Your task to perform on an android device: toggle data saver in the chrome app Image 0: 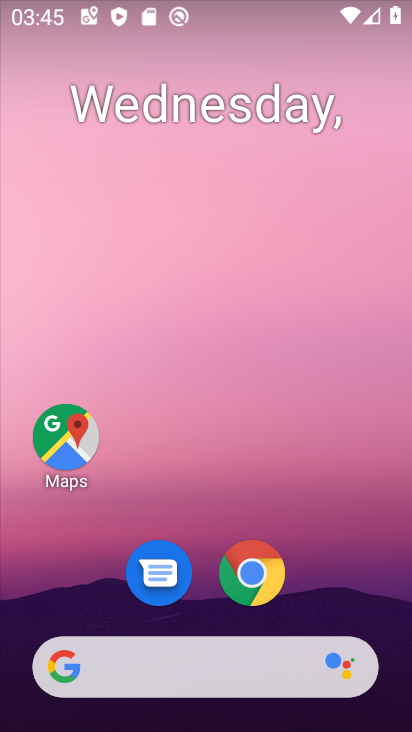
Step 0: click (250, 571)
Your task to perform on an android device: toggle data saver in the chrome app Image 1: 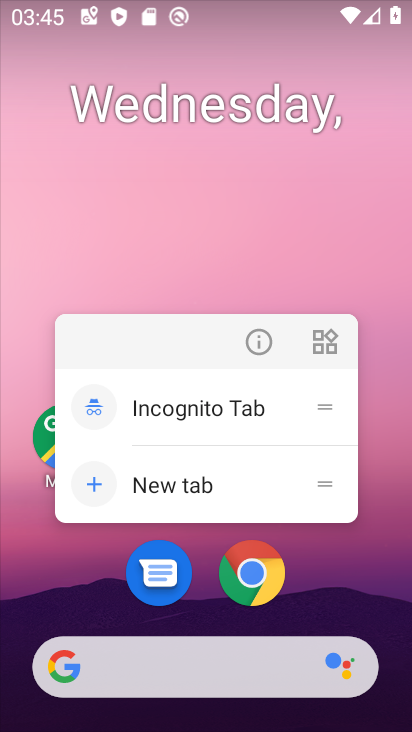
Step 1: click (250, 571)
Your task to perform on an android device: toggle data saver in the chrome app Image 2: 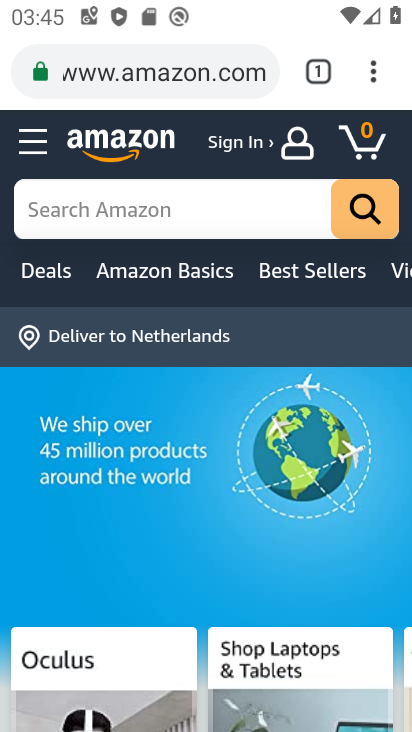
Step 2: click (376, 72)
Your task to perform on an android device: toggle data saver in the chrome app Image 3: 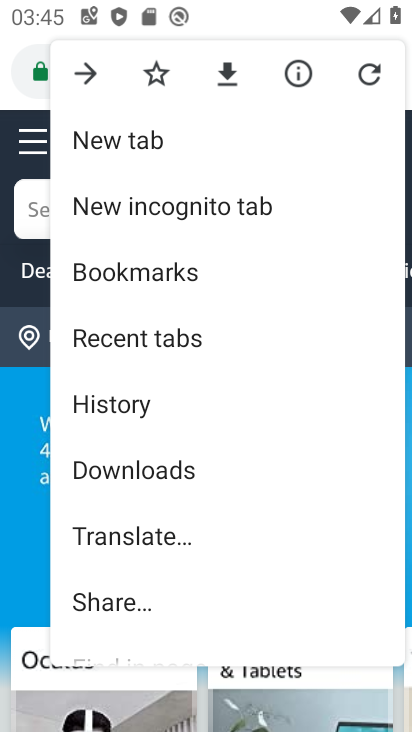
Step 3: drag from (191, 459) to (217, 349)
Your task to perform on an android device: toggle data saver in the chrome app Image 4: 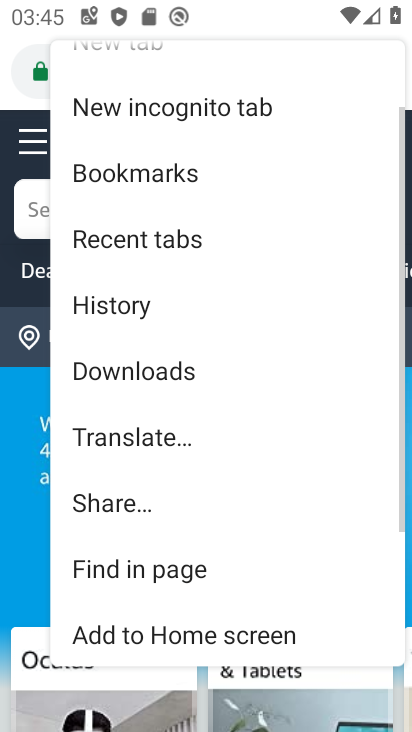
Step 4: drag from (220, 438) to (243, 371)
Your task to perform on an android device: toggle data saver in the chrome app Image 5: 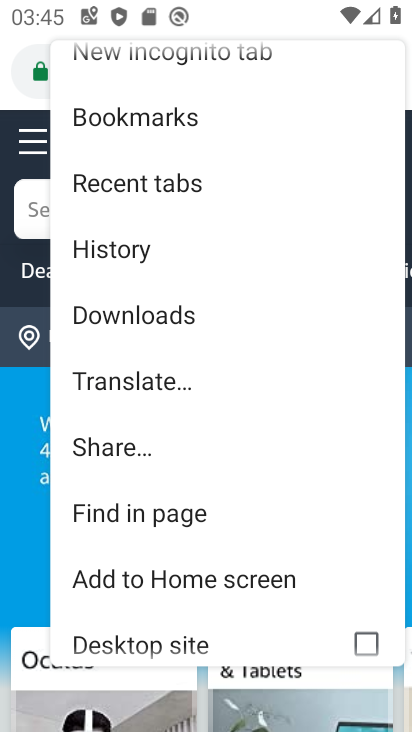
Step 5: drag from (244, 509) to (280, 347)
Your task to perform on an android device: toggle data saver in the chrome app Image 6: 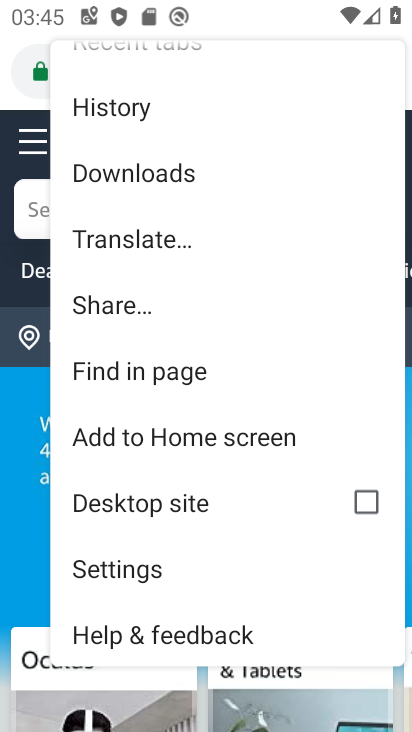
Step 6: click (144, 566)
Your task to perform on an android device: toggle data saver in the chrome app Image 7: 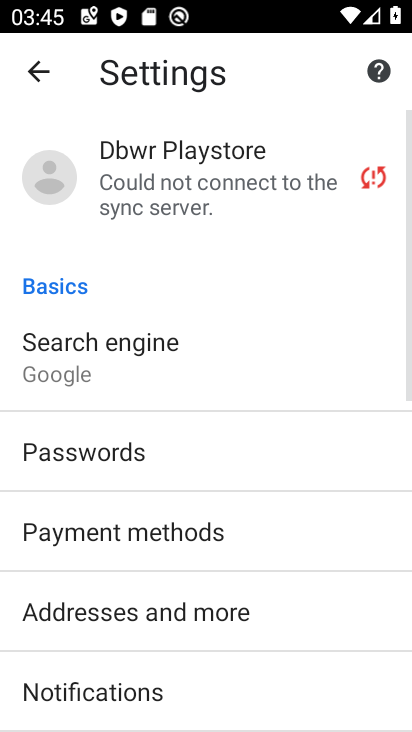
Step 7: drag from (212, 561) to (275, 417)
Your task to perform on an android device: toggle data saver in the chrome app Image 8: 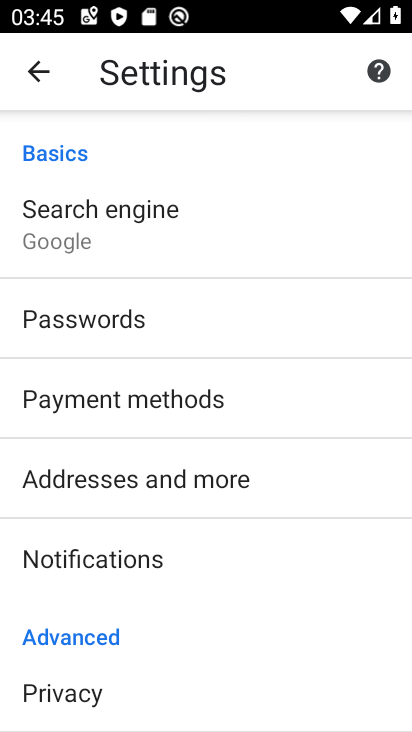
Step 8: drag from (213, 593) to (263, 428)
Your task to perform on an android device: toggle data saver in the chrome app Image 9: 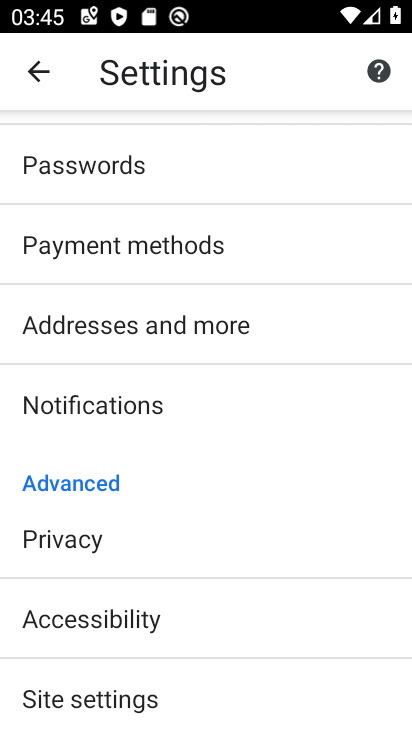
Step 9: drag from (222, 548) to (278, 415)
Your task to perform on an android device: toggle data saver in the chrome app Image 10: 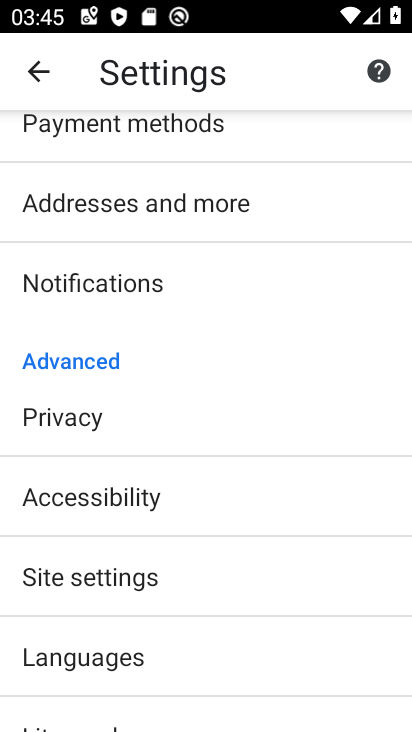
Step 10: drag from (188, 605) to (250, 434)
Your task to perform on an android device: toggle data saver in the chrome app Image 11: 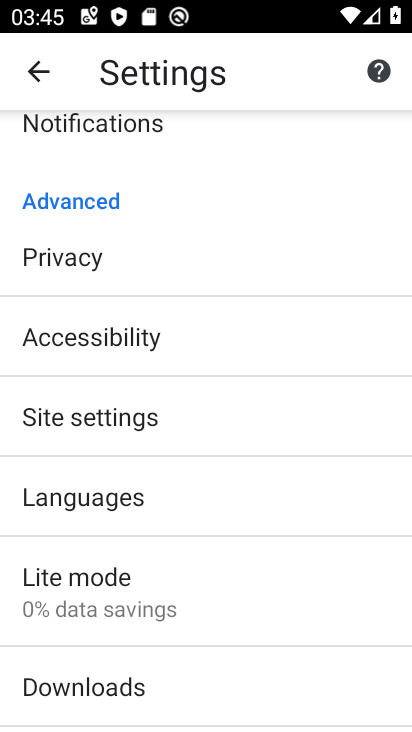
Step 11: click (99, 587)
Your task to perform on an android device: toggle data saver in the chrome app Image 12: 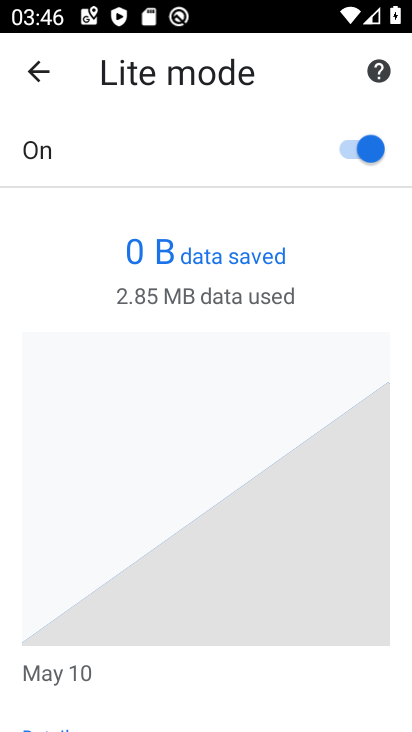
Step 12: task complete